Your task to perform on an android device: Go to sound settings Image 0: 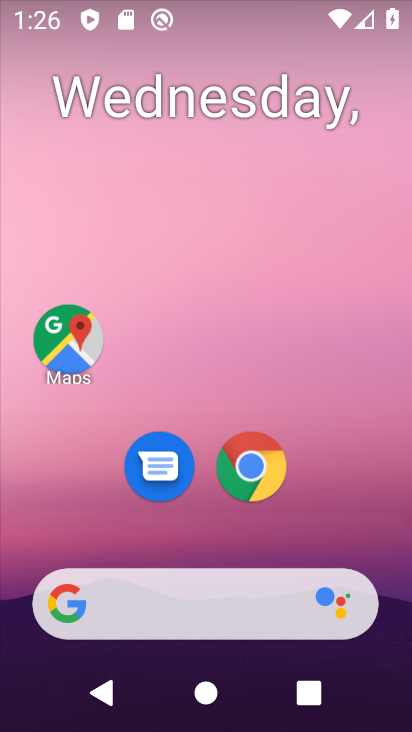
Step 0: drag from (200, 568) to (264, 115)
Your task to perform on an android device: Go to sound settings Image 1: 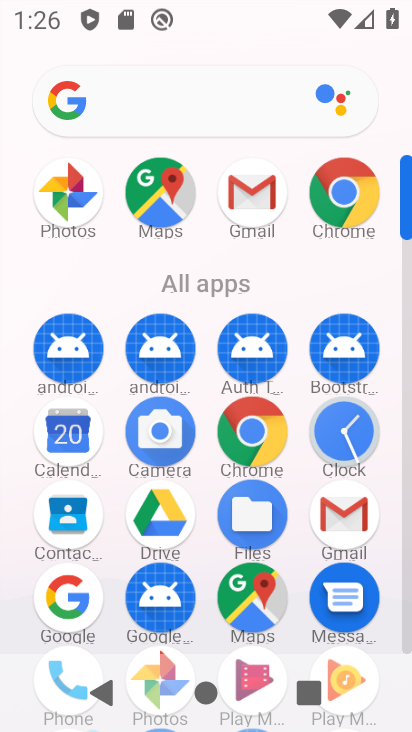
Step 1: drag from (194, 625) to (223, 265)
Your task to perform on an android device: Go to sound settings Image 2: 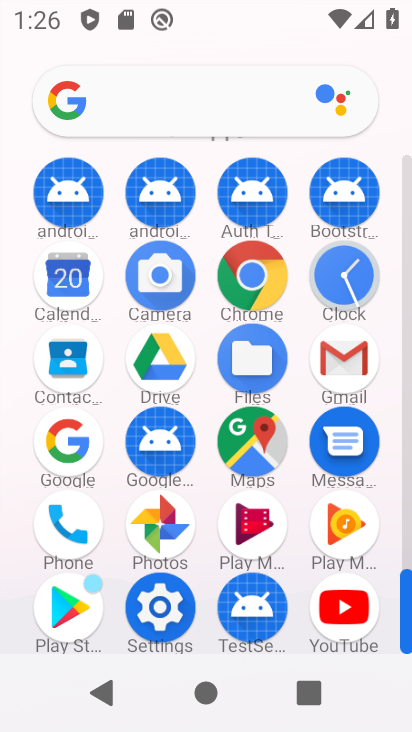
Step 2: click (167, 599)
Your task to perform on an android device: Go to sound settings Image 3: 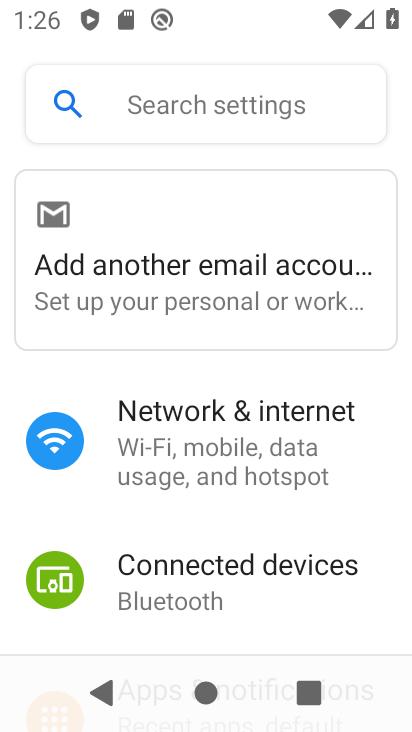
Step 3: drag from (235, 533) to (268, 211)
Your task to perform on an android device: Go to sound settings Image 4: 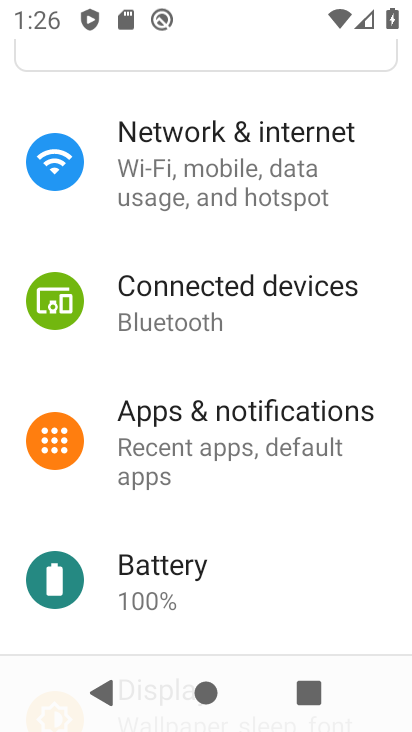
Step 4: drag from (238, 515) to (263, 226)
Your task to perform on an android device: Go to sound settings Image 5: 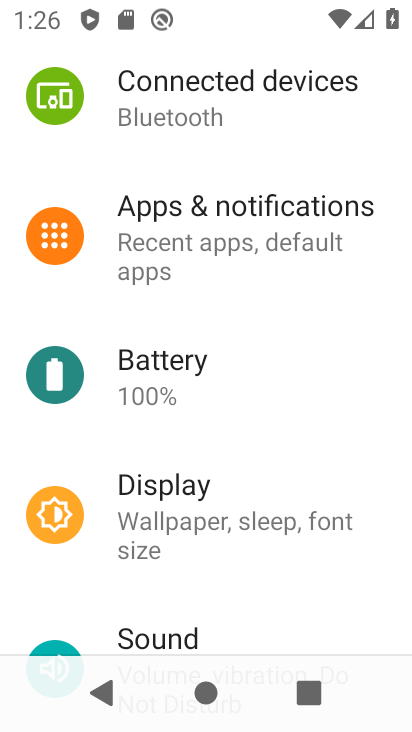
Step 5: drag from (214, 590) to (229, 365)
Your task to perform on an android device: Go to sound settings Image 6: 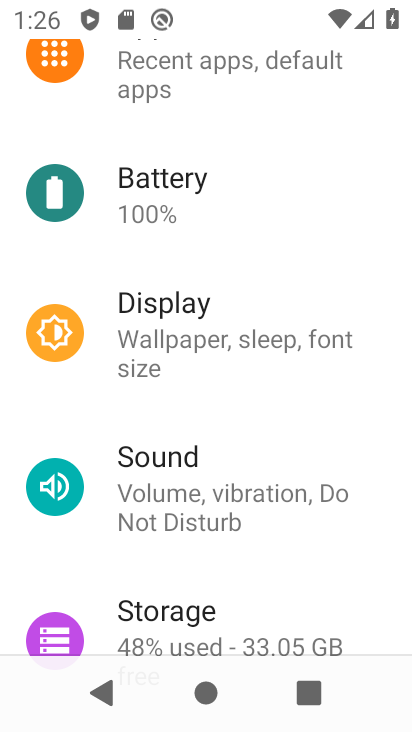
Step 6: click (180, 497)
Your task to perform on an android device: Go to sound settings Image 7: 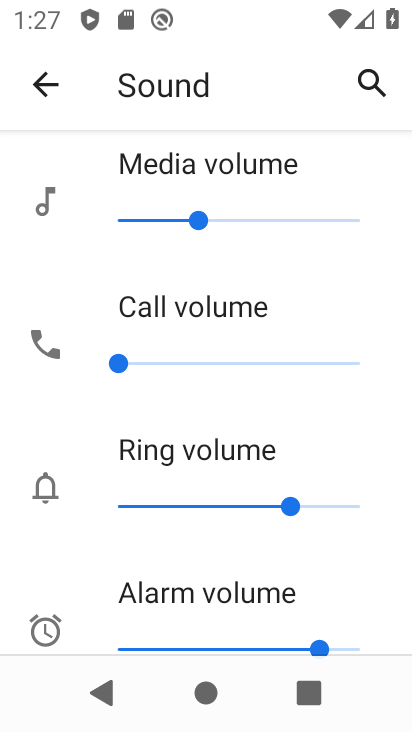
Step 7: task complete